Your task to perform on an android device: Search for Mexican restaurants on Maps Image 0: 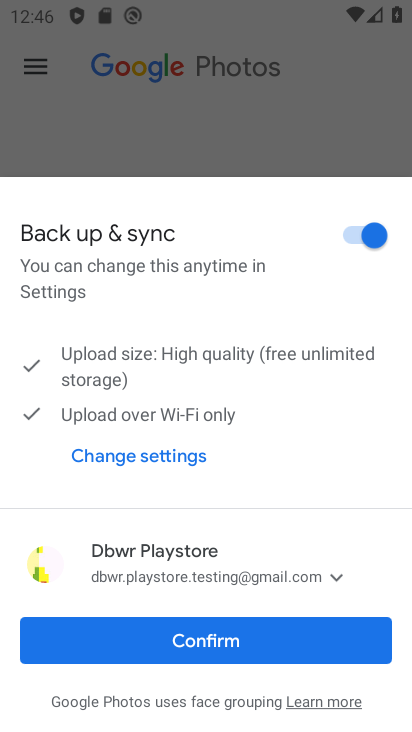
Step 0: press home button
Your task to perform on an android device: Search for Mexican restaurants on Maps Image 1: 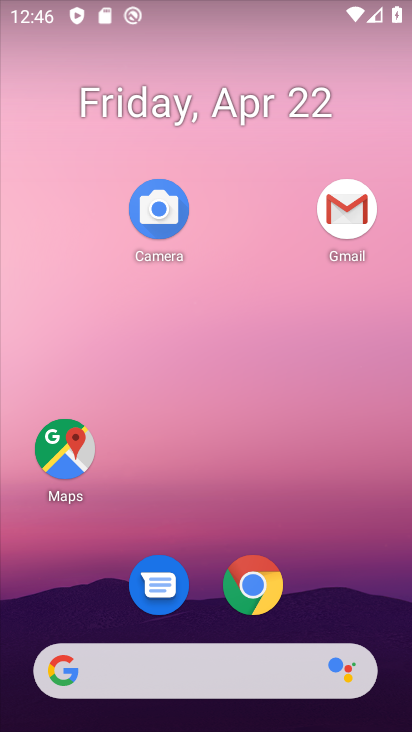
Step 1: click (63, 460)
Your task to perform on an android device: Search for Mexican restaurants on Maps Image 2: 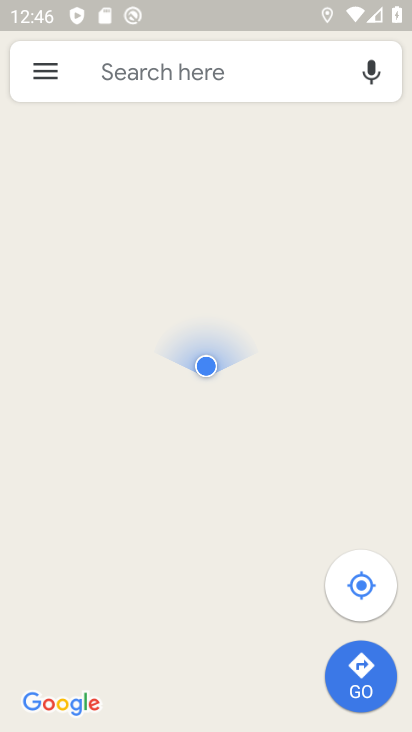
Step 2: click (248, 74)
Your task to perform on an android device: Search for Mexican restaurants on Maps Image 3: 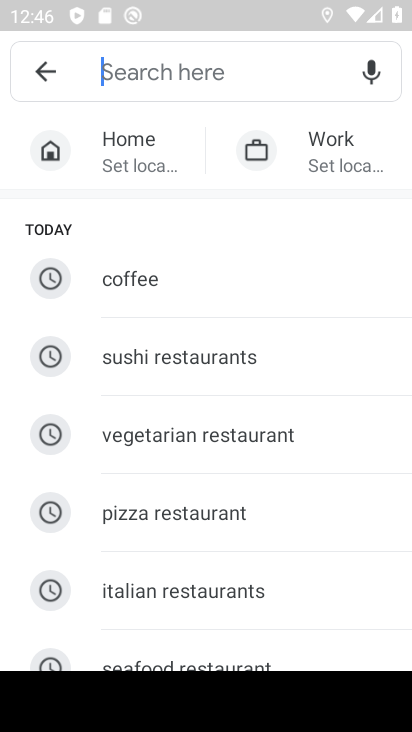
Step 3: drag from (249, 537) to (261, 254)
Your task to perform on an android device: Search for Mexican restaurants on Maps Image 4: 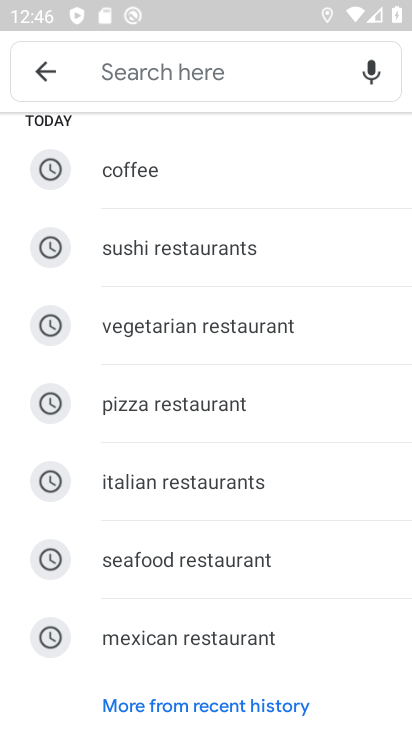
Step 4: click (242, 629)
Your task to perform on an android device: Search for Mexican restaurants on Maps Image 5: 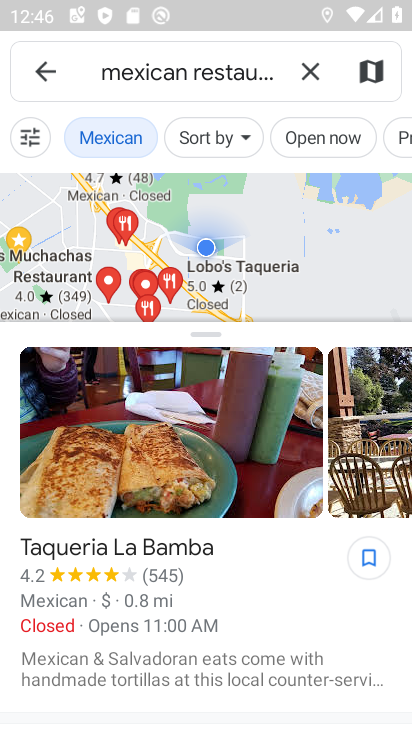
Step 5: task complete